Your task to perform on an android device: Show me recent news Image 0: 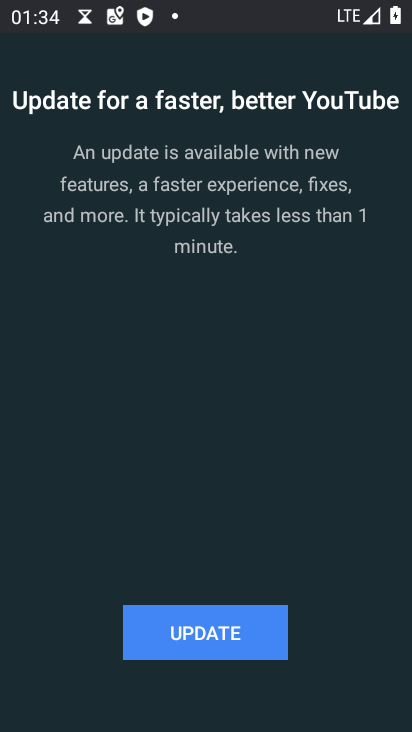
Step 0: press home button
Your task to perform on an android device: Show me recent news Image 1: 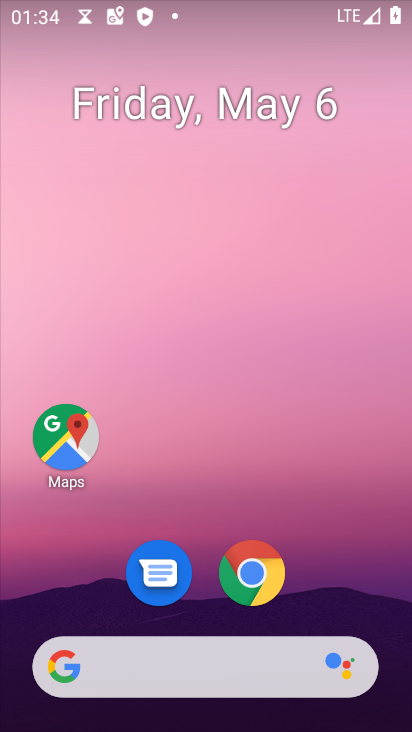
Step 1: drag from (364, 547) to (364, 281)
Your task to perform on an android device: Show me recent news Image 2: 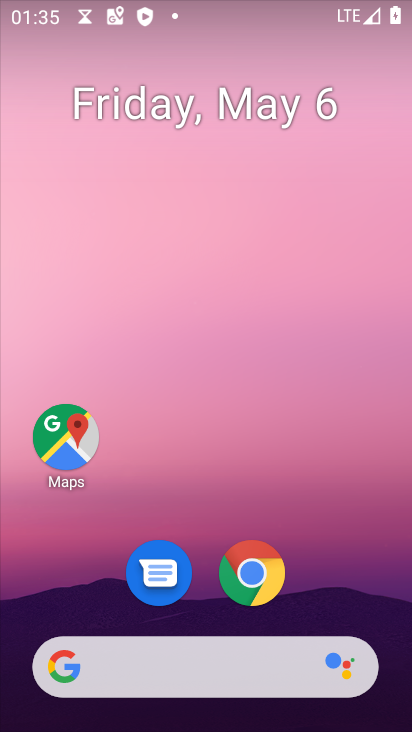
Step 2: drag from (323, 553) to (328, 343)
Your task to perform on an android device: Show me recent news Image 3: 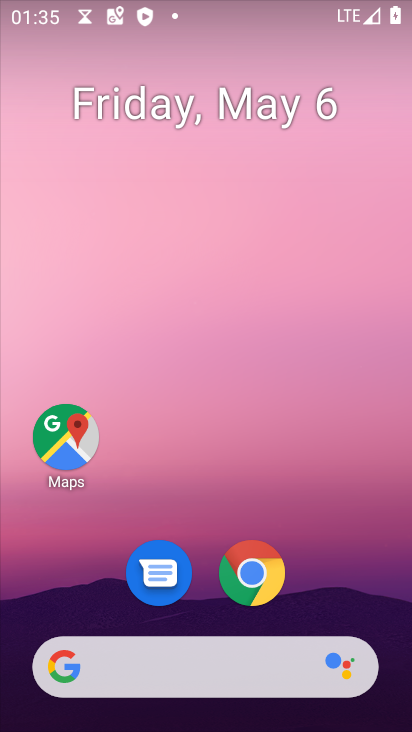
Step 3: drag from (304, 565) to (318, 220)
Your task to perform on an android device: Show me recent news Image 4: 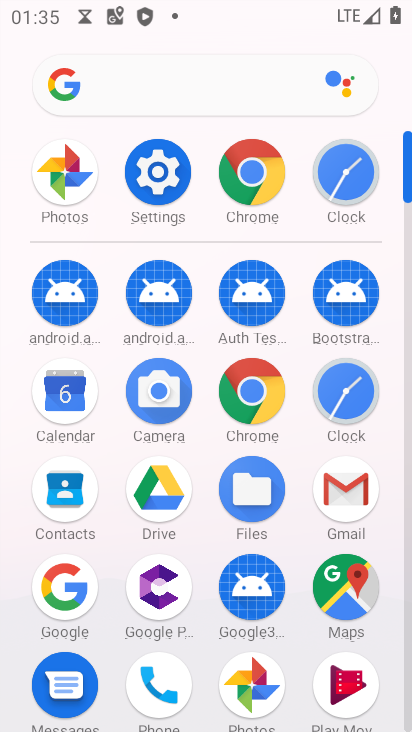
Step 4: click (247, 161)
Your task to perform on an android device: Show me recent news Image 5: 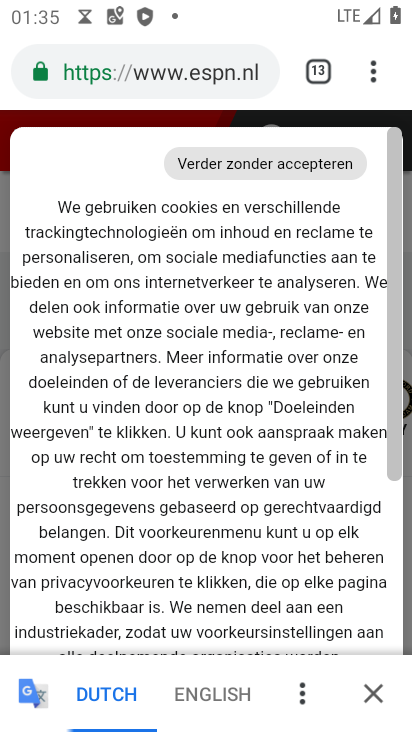
Step 5: click (356, 73)
Your task to perform on an android device: Show me recent news Image 6: 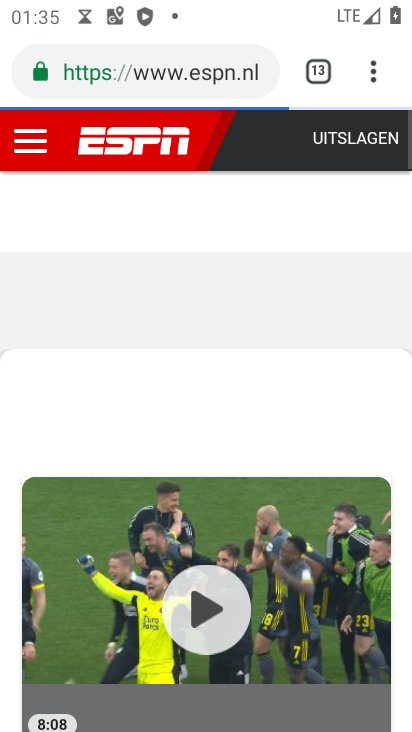
Step 6: click (357, 61)
Your task to perform on an android device: Show me recent news Image 7: 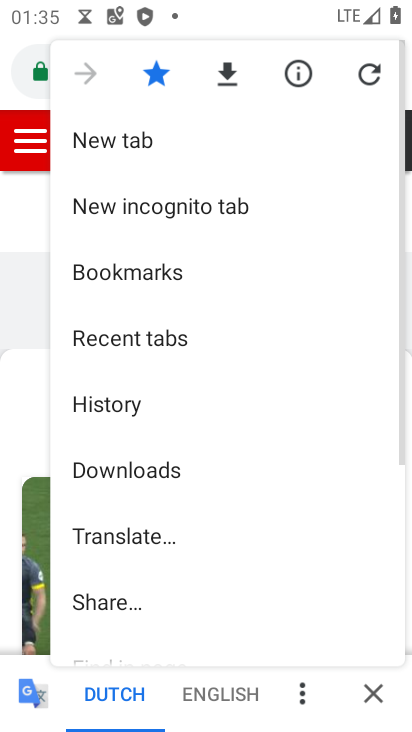
Step 7: click (160, 139)
Your task to perform on an android device: Show me recent news Image 8: 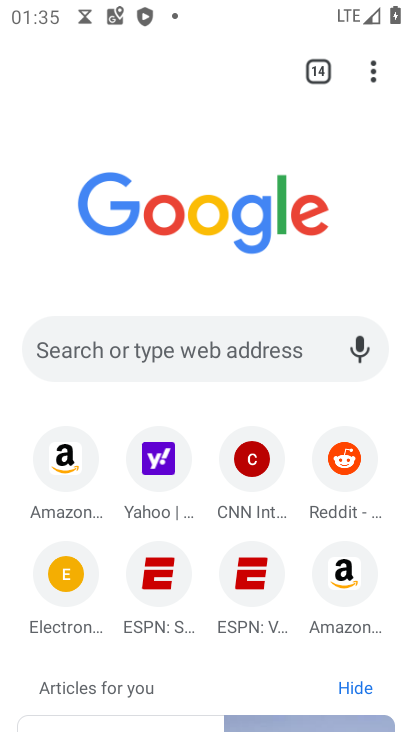
Step 8: click (185, 329)
Your task to perform on an android device: Show me recent news Image 9: 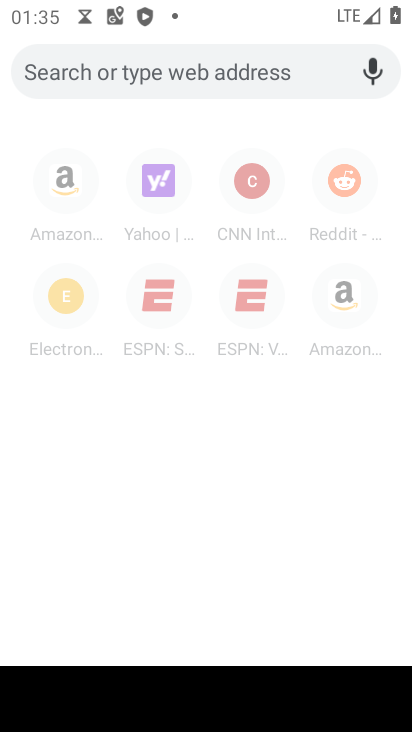
Step 9: type "Show me recent news"
Your task to perform on an android device: Show me recent news Image 10: 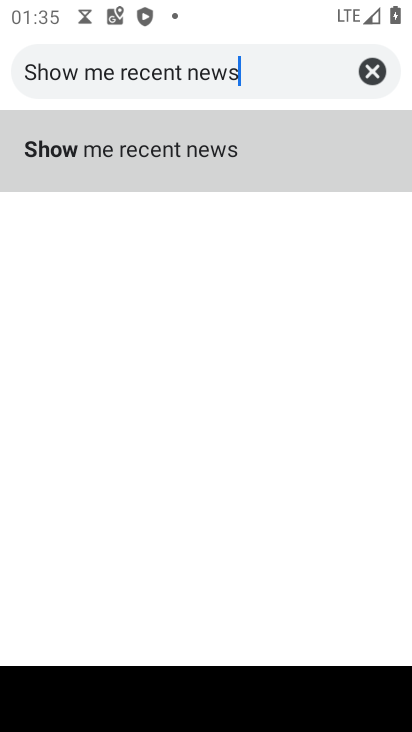
Step 10: click (193, 137)
Your task to perform on an android device: Show me recent news Image 11: 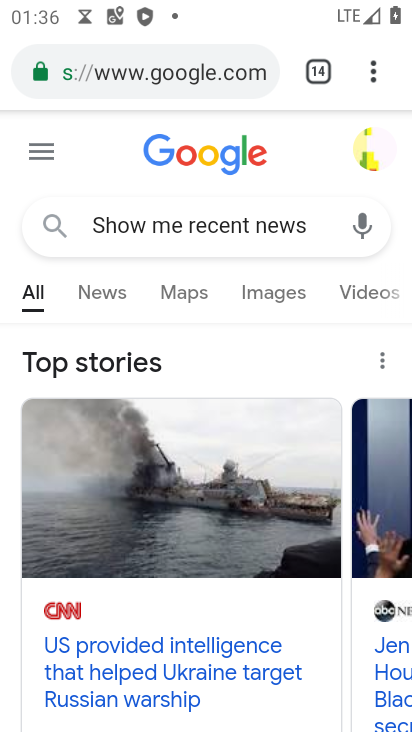
Step 11: task complete